Your task to perform on an android device: Add rayovac triple a to the cart on bestbuy.com, then select checkout. Image 0: 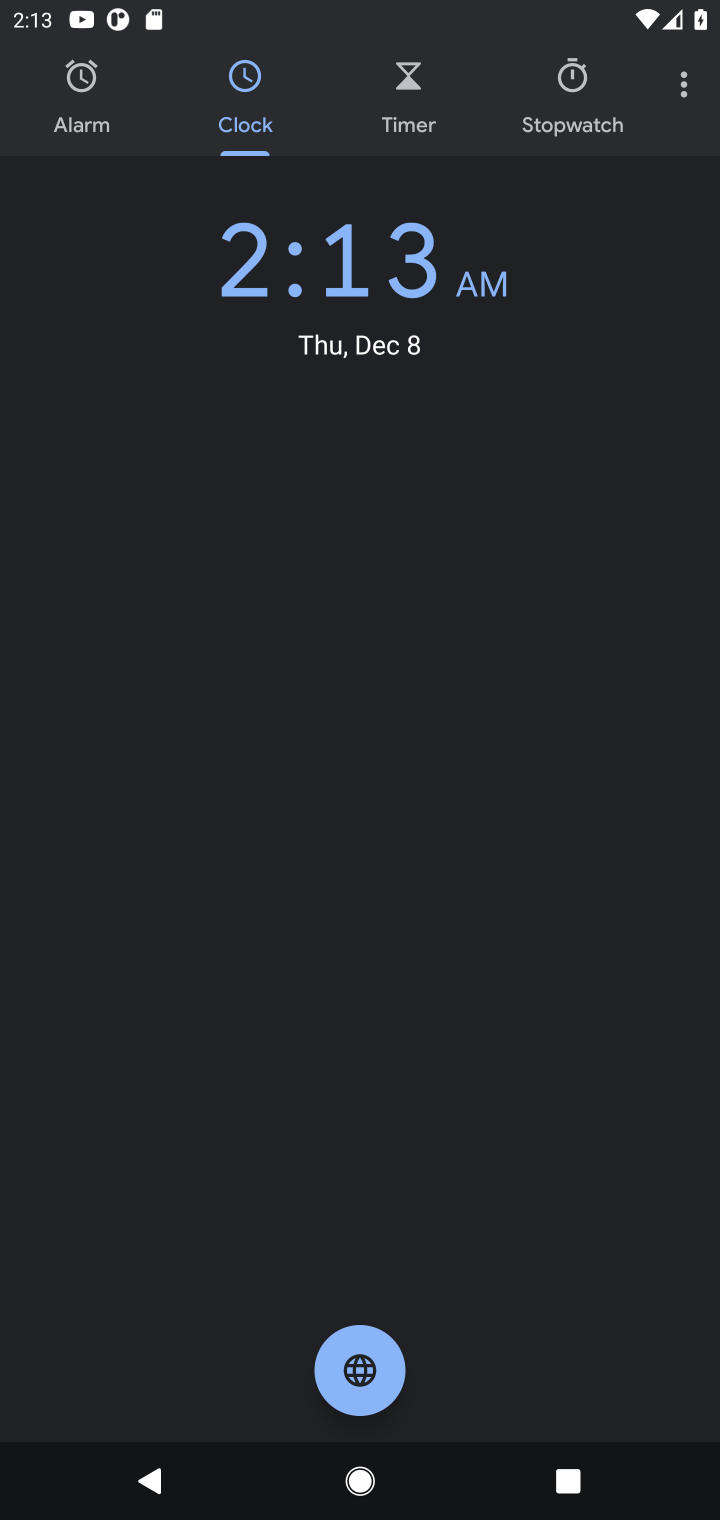
Step 0: press home button
Your task to perform on an android device: Add rayovac triple a to the cart on bestbuy.com, then select checkout. Image 1: 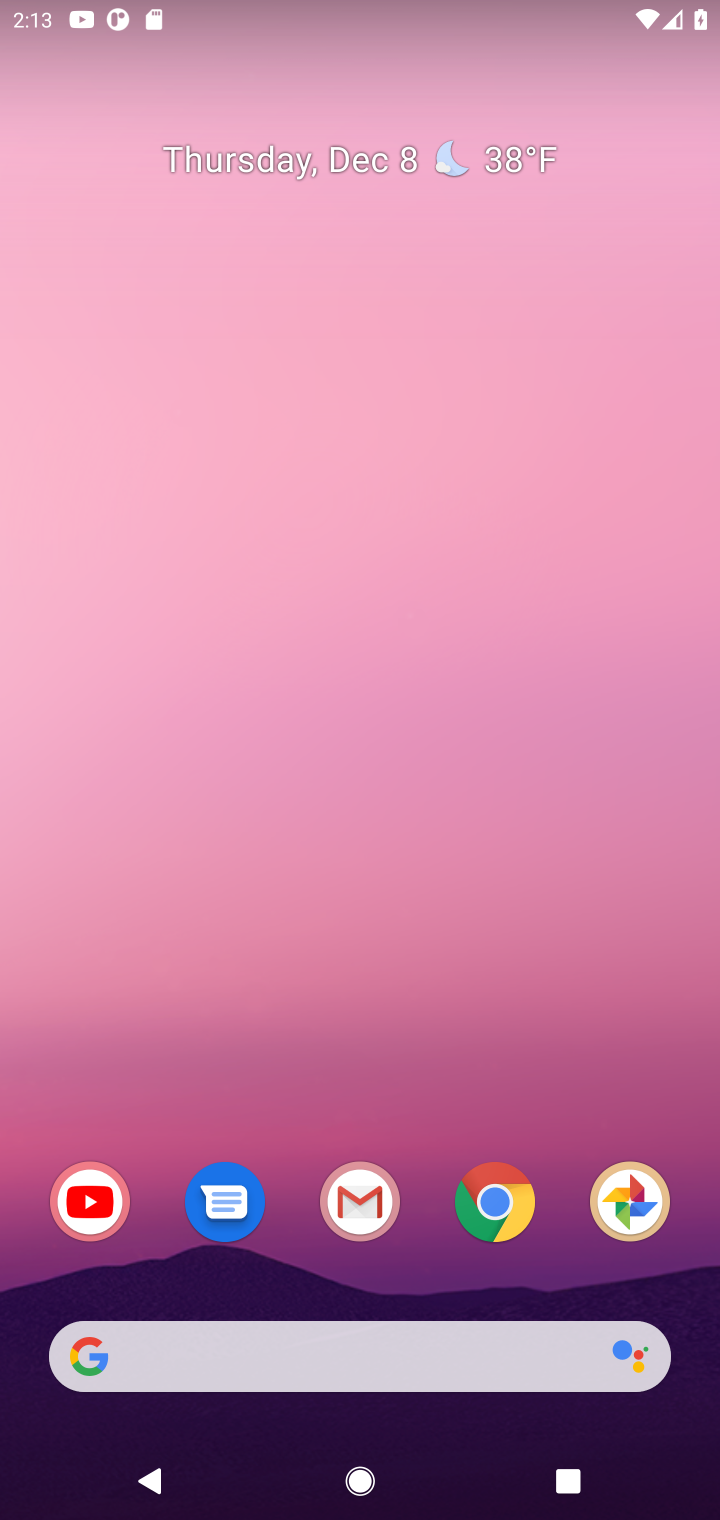
Step 1: click (488, 1197)
Your task to perform on an android device: Add rayovac triple a to the cart on bestbuy.com, then select checkout. Image 2: 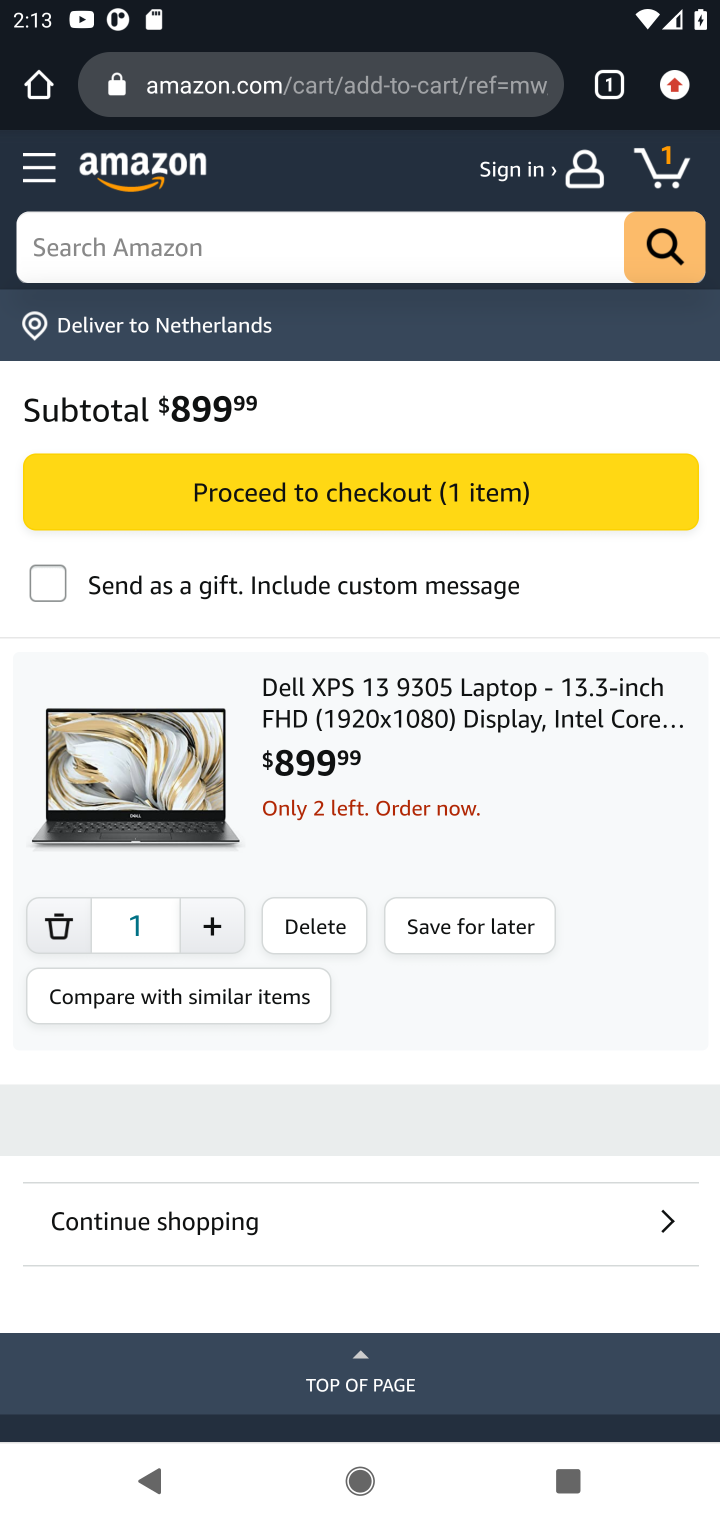
Step 2: click (398, 79)
Your task to perform on an android device: Add rayovac triple a to the cart on bestbuy.com, then select checkout. Image 3: 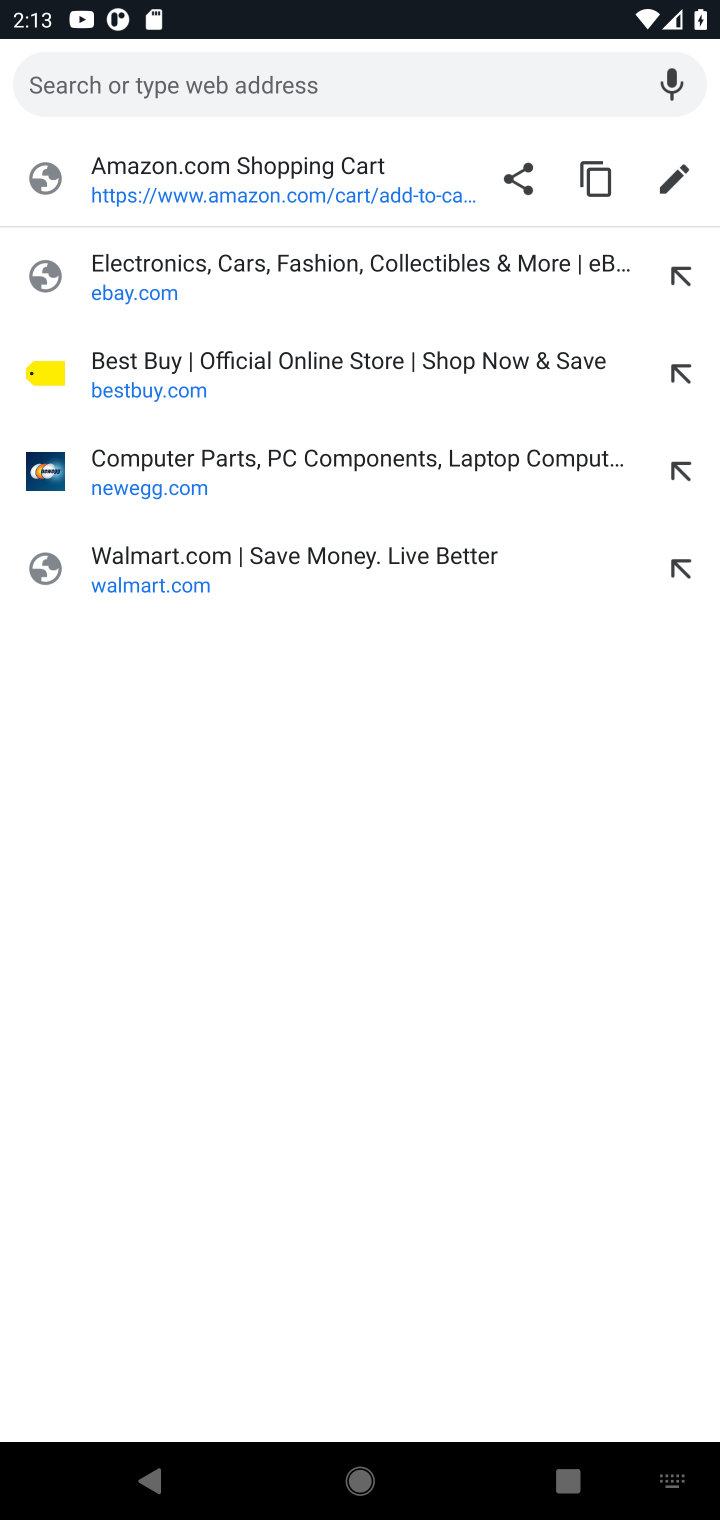
Step 3: click (282, 364)
Your task to perform on an android device: Add rayovac triple a to the cart on bestbuy.com, then select checkout. Image 4: 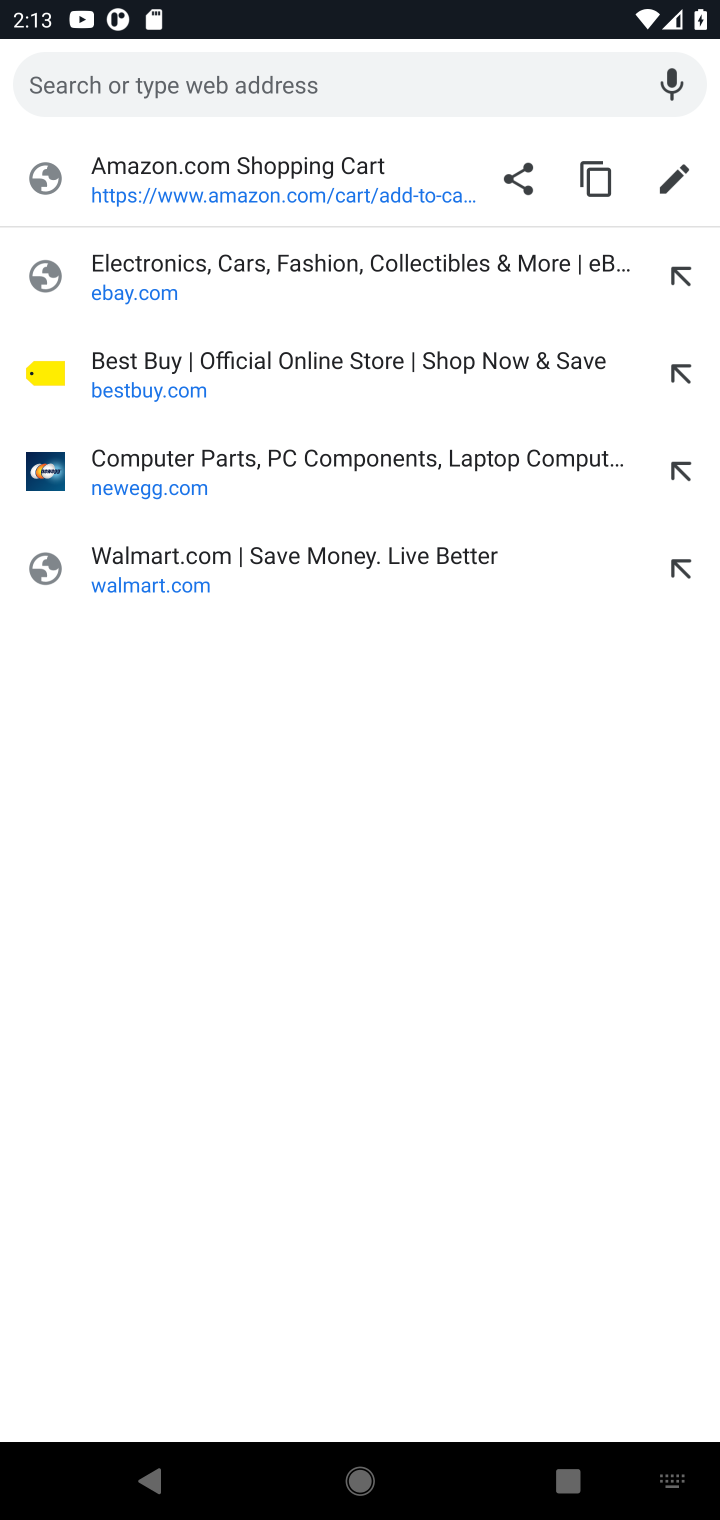
Step 4: click (129, 348)
Your task to perform on an android device: Add rayovac triple a to the cart on bestbuy.com, then select checkout. Image 5: 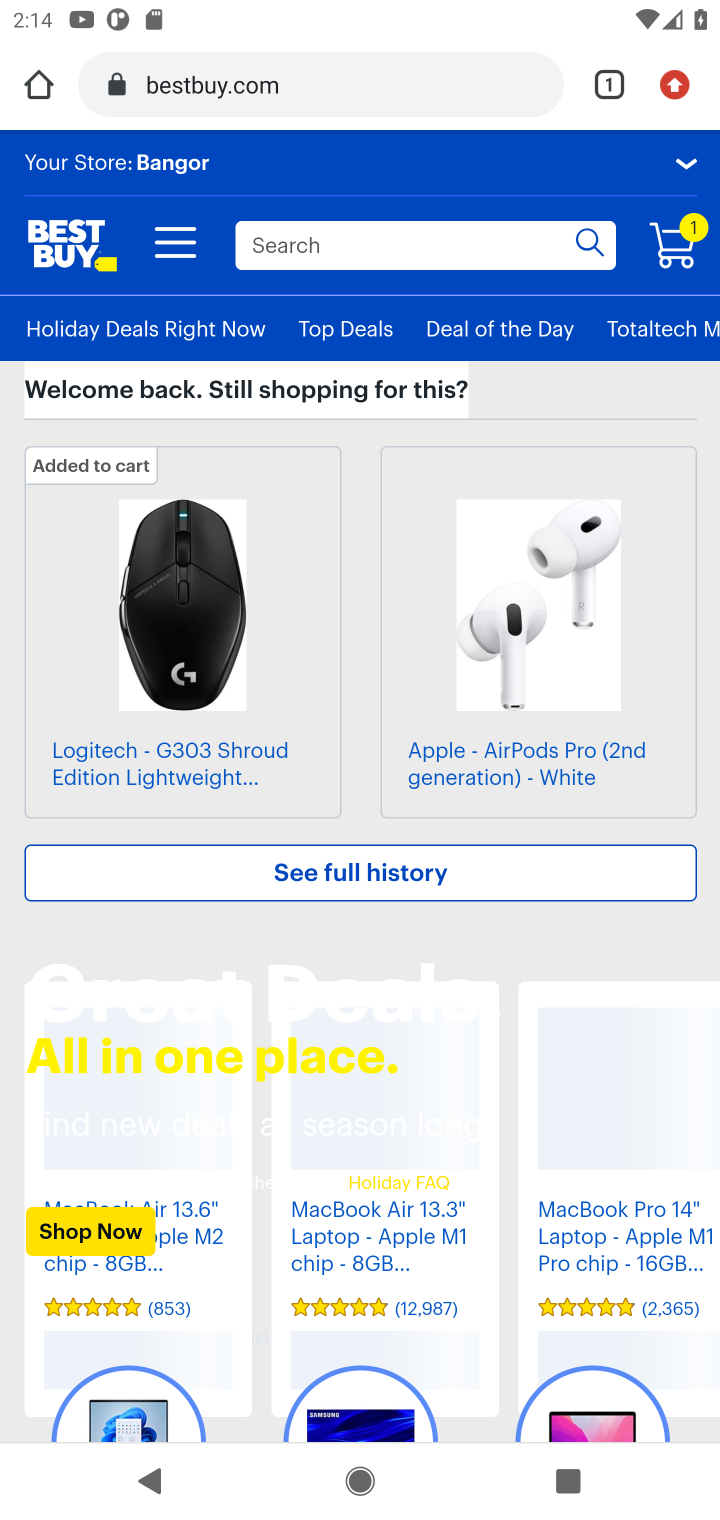
Step 5: click (415, 239)
Your task to perform on an android device: Add rayovac triple a to the cart on bestbuy.com, then select checkout. Image 6: 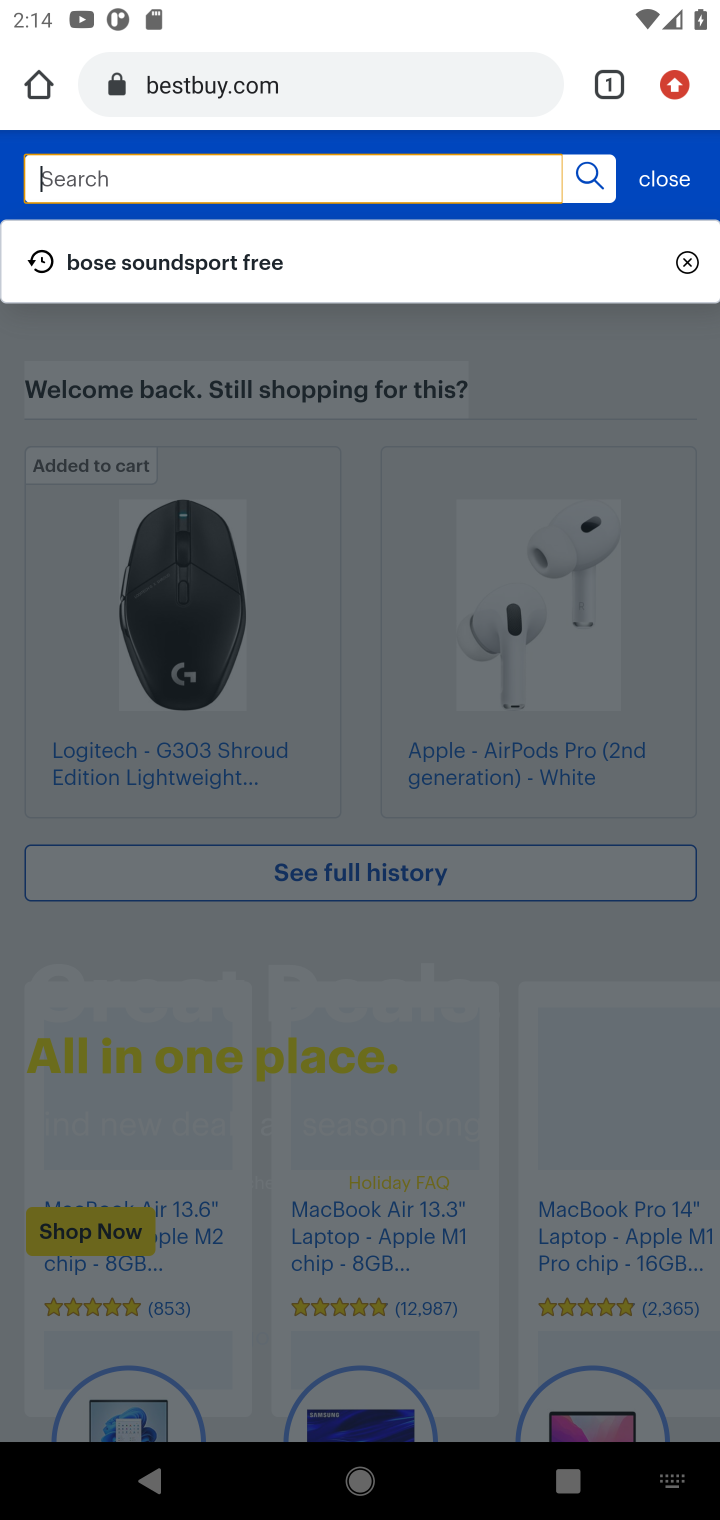
Step 6: press enter
Your task to perform on an android device: Add rayovac triple a to the cart on bestbuy.com, then select checkout. Image 7: 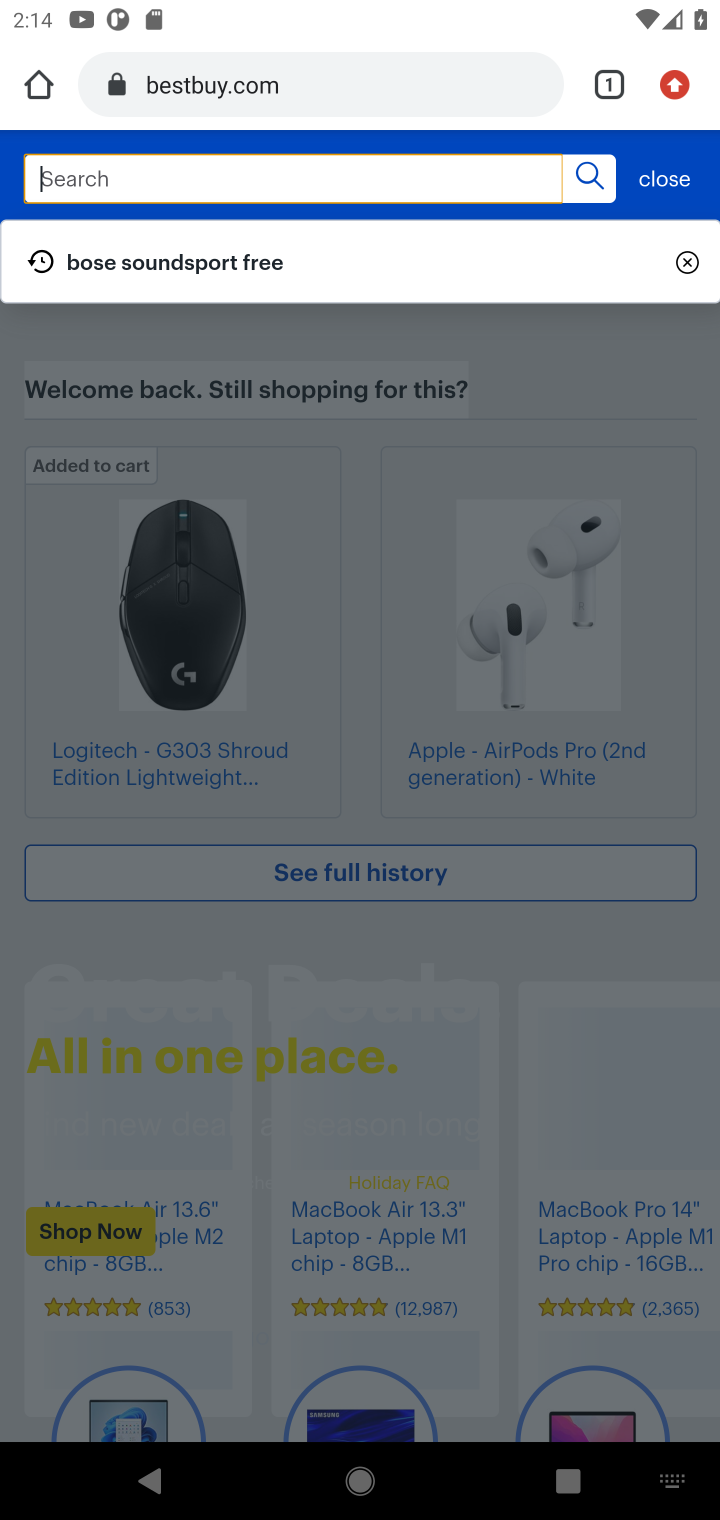
Step 7: type "rayovac triple a"
Your task to perform on an android device: Add rayovac triple a to the cart on bestbuy.com, then select checkout. Image 8: 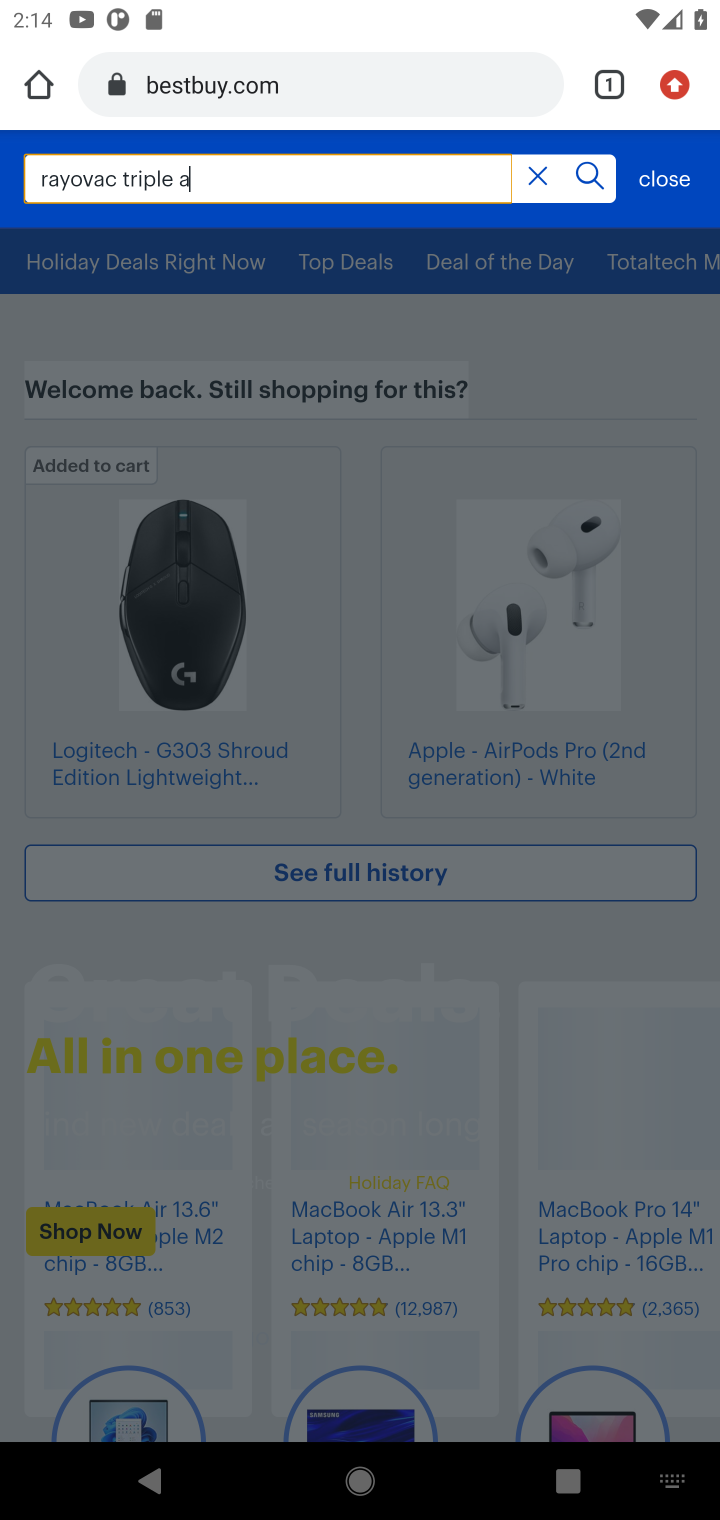
Step 8: click (595, 176)
Your task to perform on an android device: Add rayovac triple a to the cart on bestbuy.com, then select checkout. Image 9: 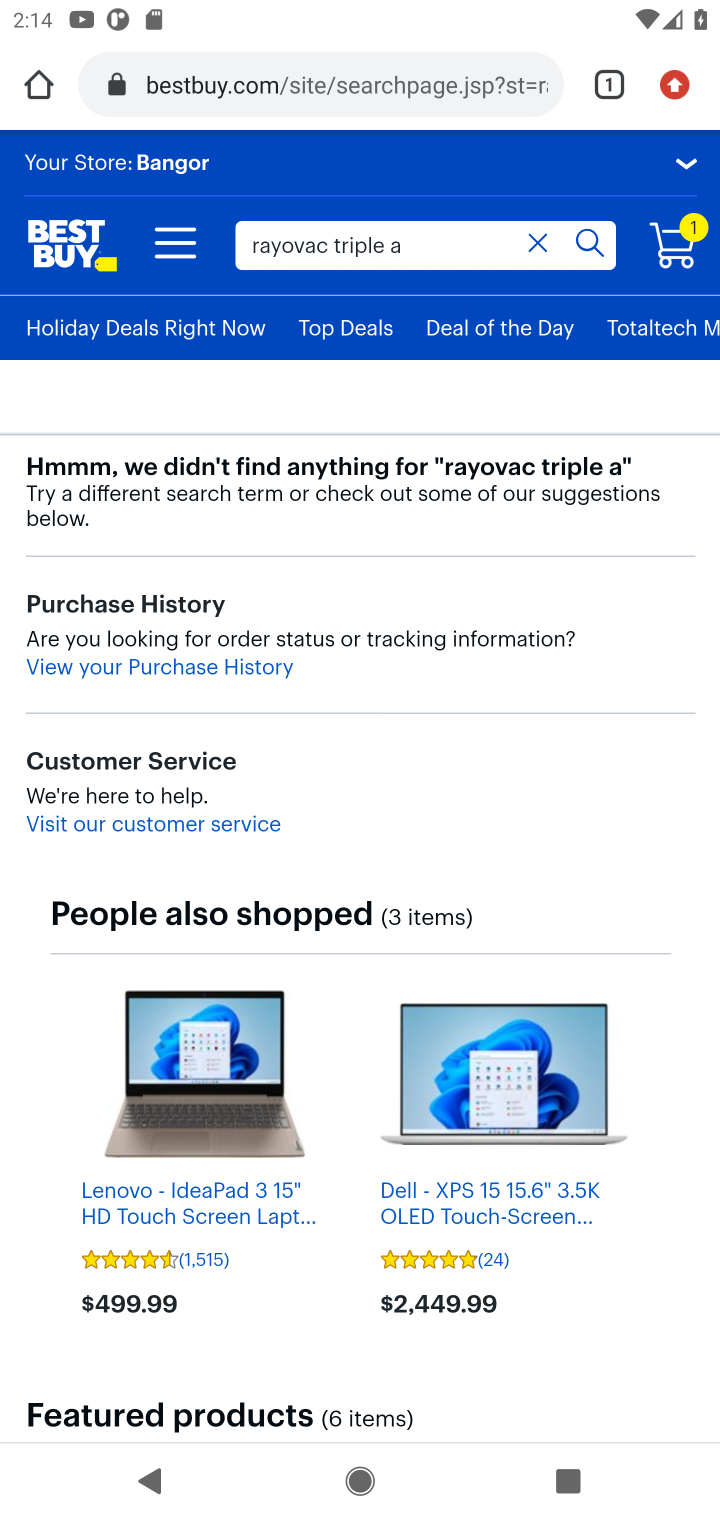
Step 9: task complete